Your task to perform on an android device: turn off priority inbox in the gmail app Image 0: 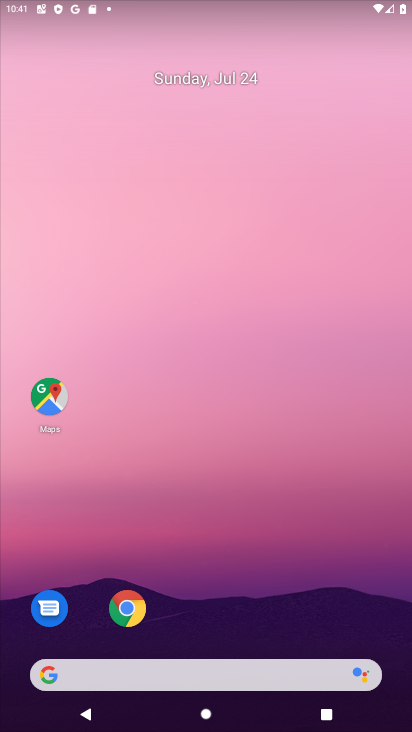
Step 0: press home button
Your task to perform on an android device: turn off priority inbox in the gmail app Image 1: 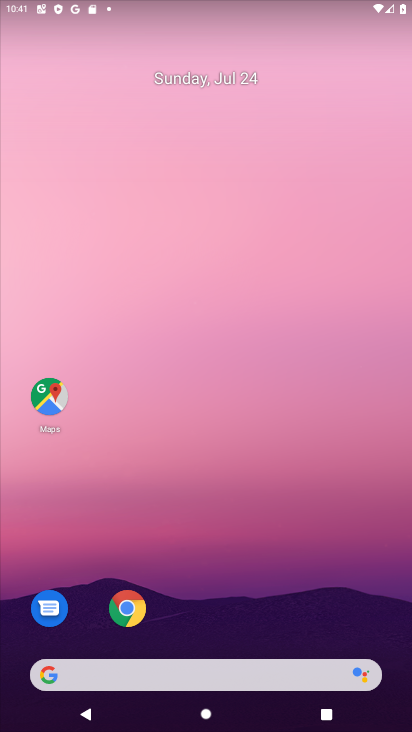
Step 1: drag from (214, 635) to (210, 7)
Your task to perform on an android device: turn off priority inbox in the gmail app Image 2: 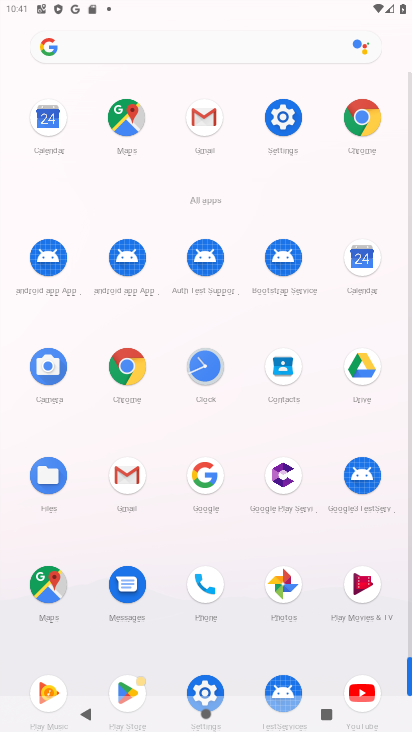
Step 2: click (206, 116)
Your task to perform on an android device: turn off priority inbox in the gmail app Image 3: 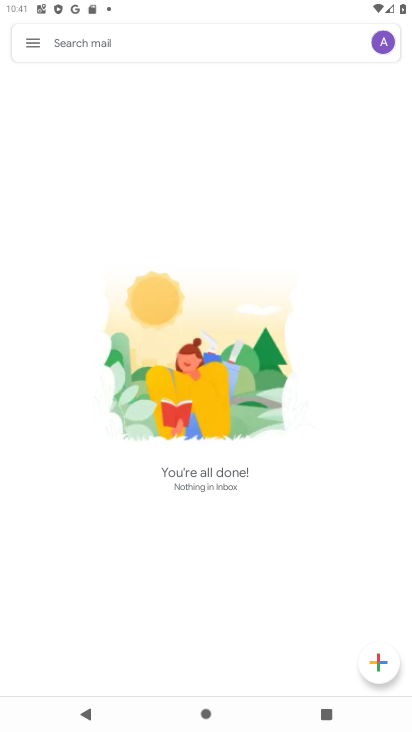
Step 3: click (28, 44)
Your task to perform on an android device: turn off priority inbox in the gmail app Image 4: 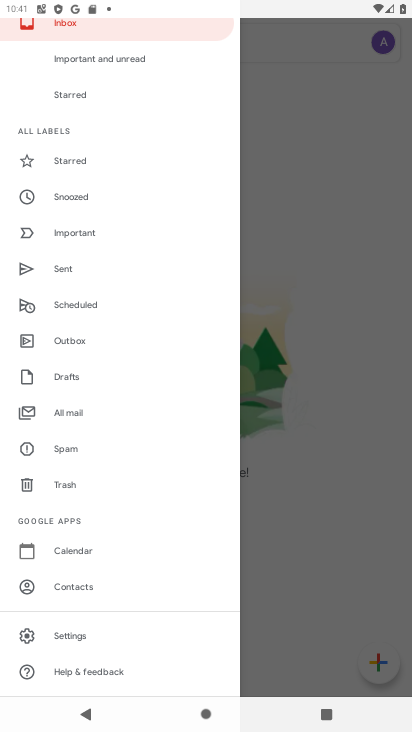
Step 4: click (90, 633)
Your task to perform on an android device: turn off priority inbox in the gmail app Image 5: 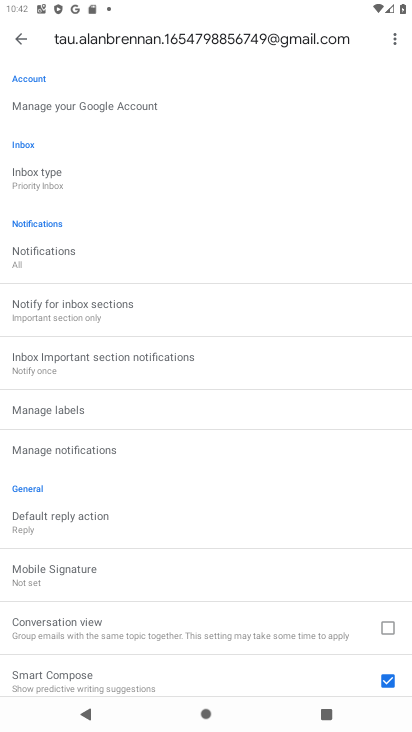
Step 5: click (75, 174)
Your task to perform on an android device: turn off priority inbox in the gmail app Image 6: 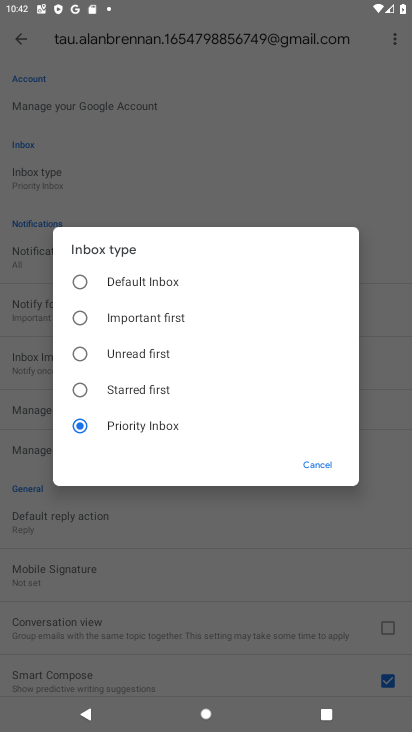
Step 6: click (83, 382)
Your task to perform on an android device: turn off priority inbox in the gmail app Image 7: 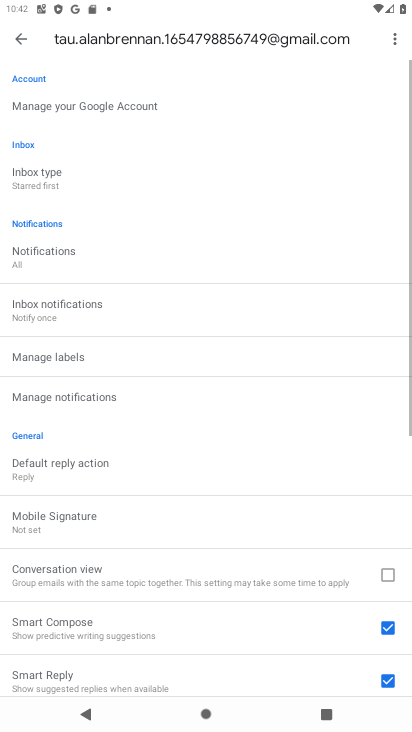
Step 7: task complete